Your task to perform on an android device: turn off airplane mode Image 0: 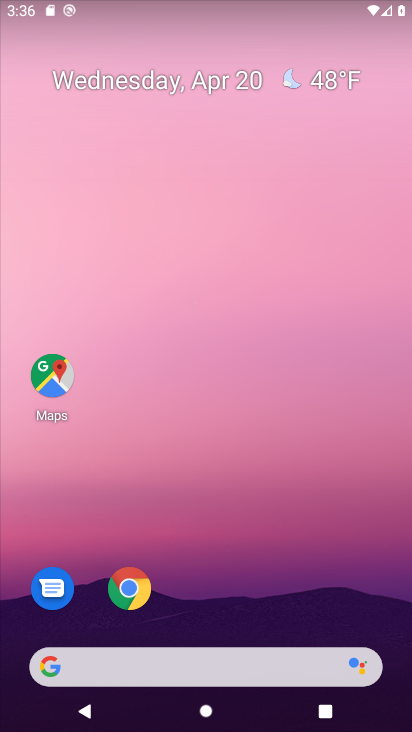
Step 0: drag from (287, 548) to (309, 126)
Your task to perform on an android device: turn off airplane mode Image 1: 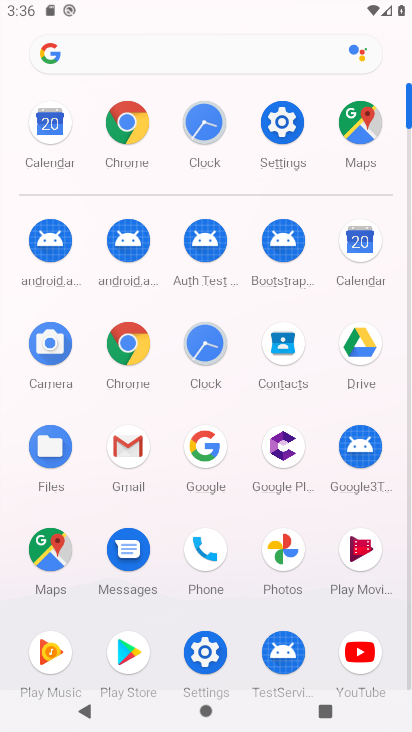
Step 1: click (278, 127)
Your task to perform on an android device: turn off airplane mode Image 2: 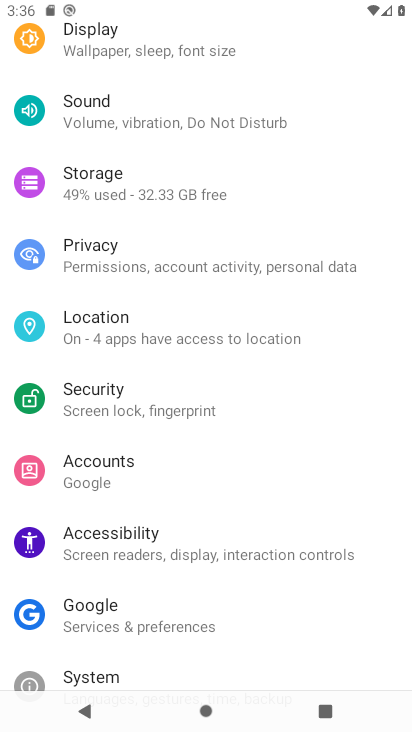
Step 2: drag from (357, 613) to (351, 428)
Your task to perform on an android device: turn off airplane mode Image 3: 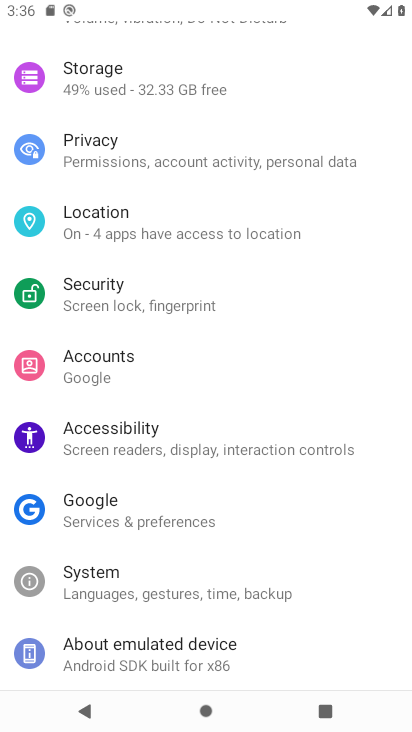
Step 3: drag from (326, 583) to (276, 270)
Your task to perform on an android device: turn off airplane mode Image 4: 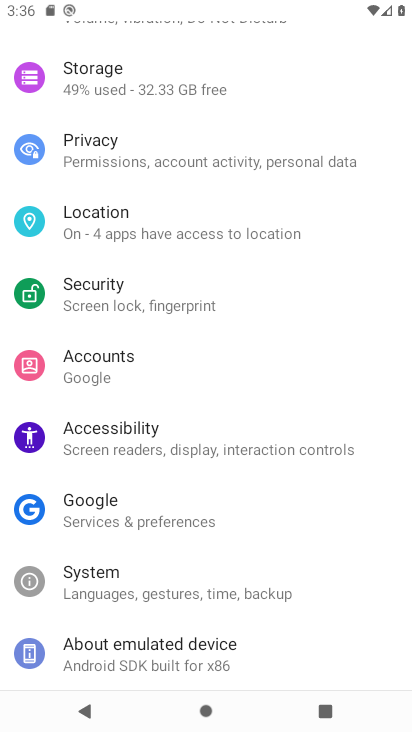
Step 4: drag from (338, 207) to (355, 523)
Your task to perform on an android device: turn off airplane mode Image 5: 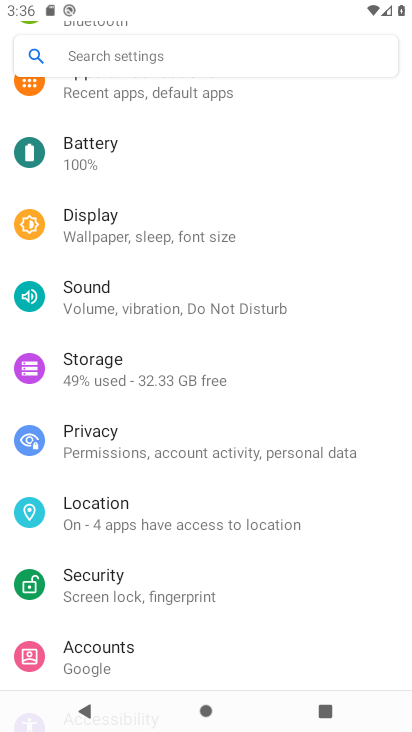
Step 5: drag from (359, 180) to (377, 393)
Your task to perform on an android device: turn off airplane mode Image 6: 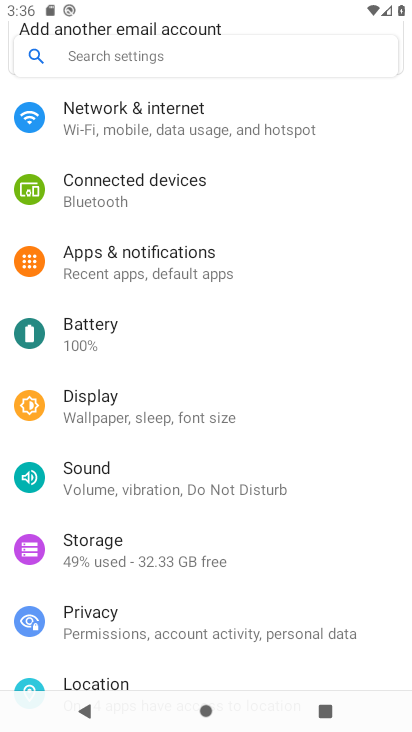
Step 6: click (194, 117)
Your task to perform on an android device: turn off airplane mode Image 7: 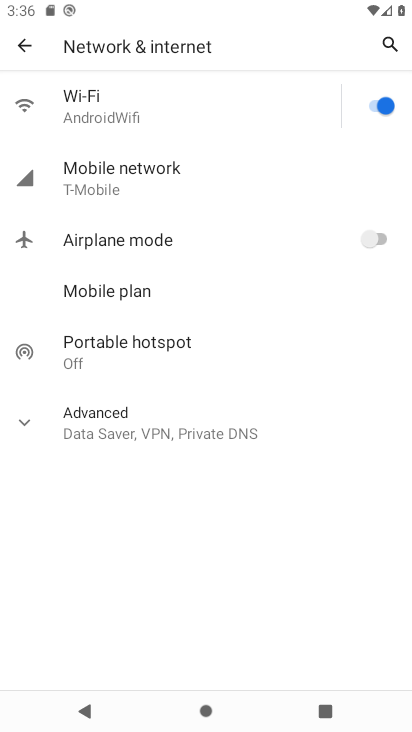
Step 7: task complete